Your task to perform on an android device: Open the phone app and click the voicemail tab. Image 0: 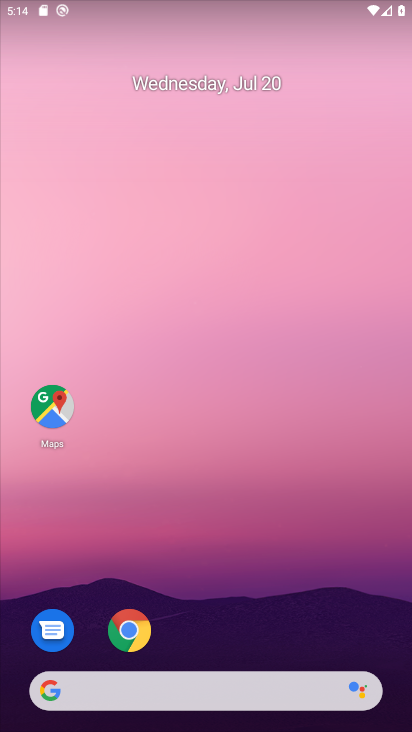
Step 0: press home button
Your task to perform on an android device: Open the phone app and click the voicemail tab. Image 1: 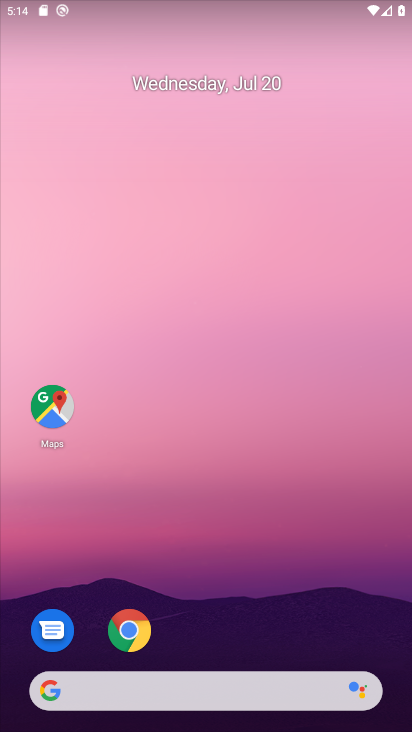
Step 1: drag from (248, 633) to (236, 102)
Your task to perform on an android device: Open the phone app and click the voicemail tab. Image 2: 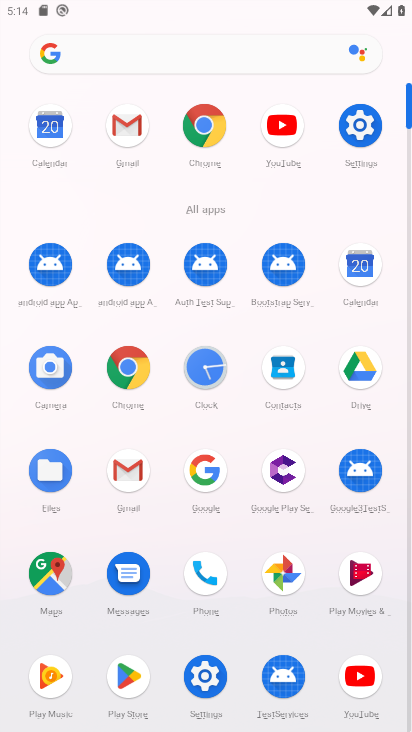
Step 2: click (203, 573)
Your task to perform on an android device: Open the phone app and click the voicemail tab. Image 3: 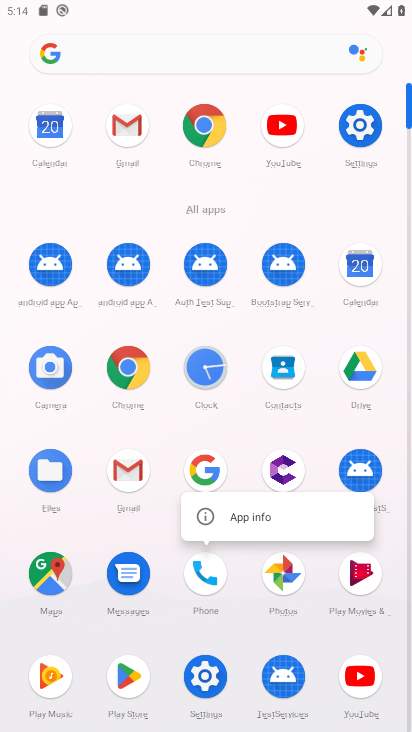
Step 3: click (197, 581)
Your task to perform on an android device: Open the phone app and click the voicemail tab. Image 4: 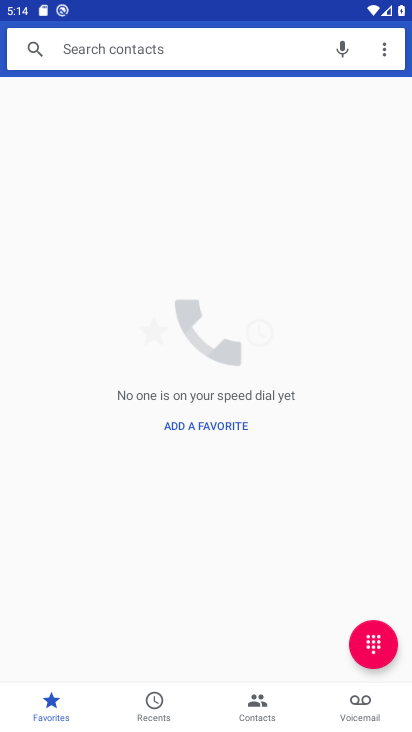
Step 4: click (358, 707)
Your task to perform on an android device: Open the phone app and click the voicemail tab. Image 5: 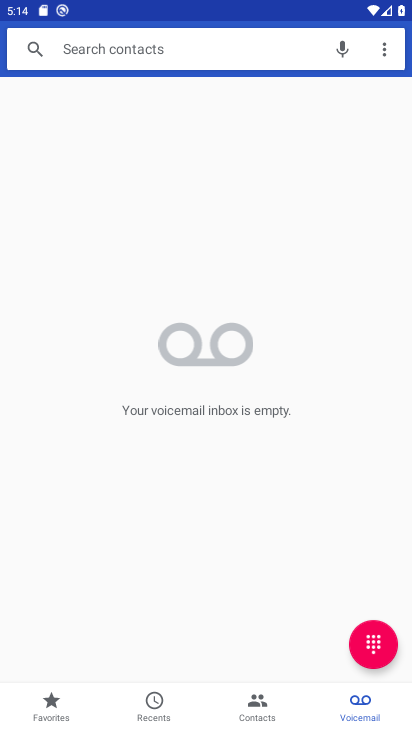
Step 5: task complete